Your task to perform on an android device: Open Google Chrome Image 0: 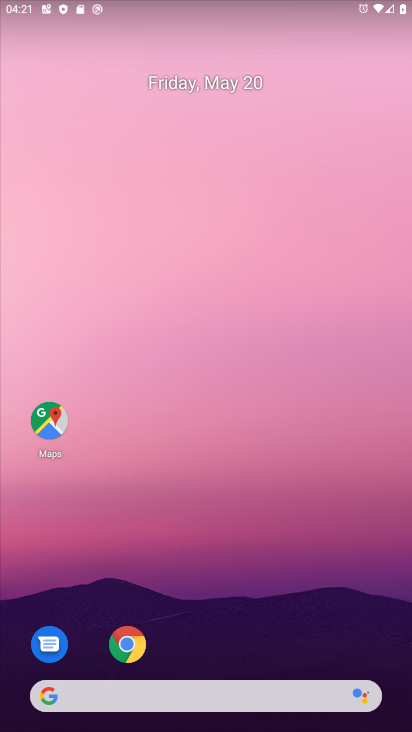
Step 0: click (140, 656)
Your task to perform on an android device: Open Google Chrome Image 1: 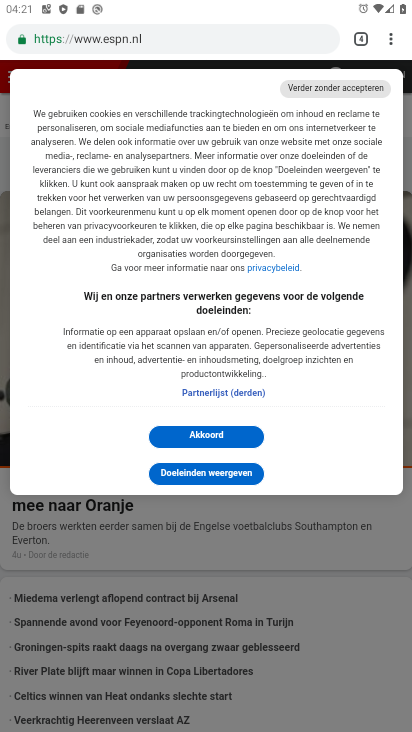
Step 1: task complete